Your task to perform on an android device: Open calendar and show me the second week of next month Image 0: 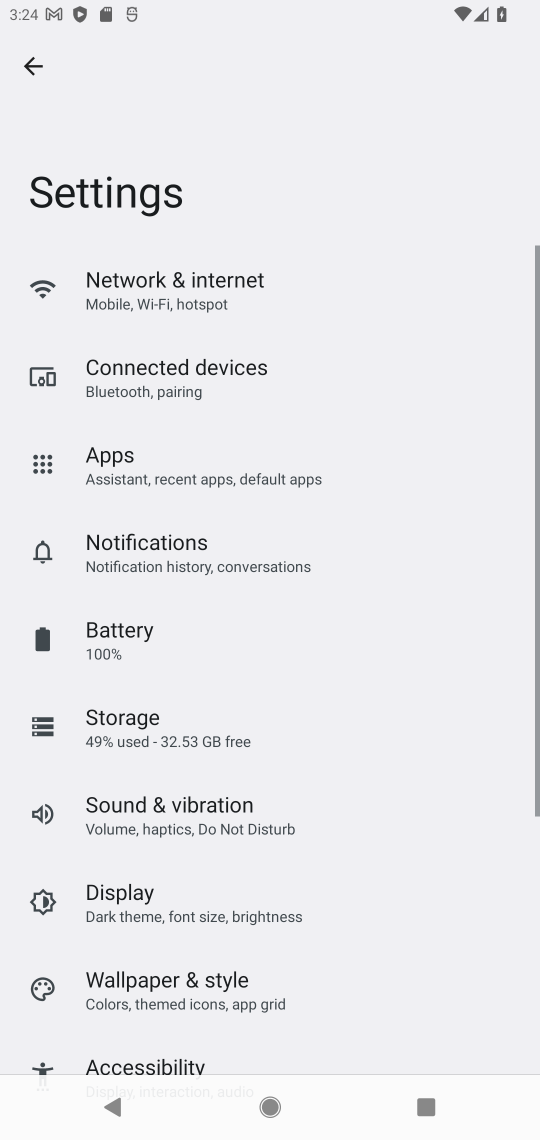
Step 0: press home button
Your task to perform on an android device: Open calendar and show me the second week of next month Image 1: 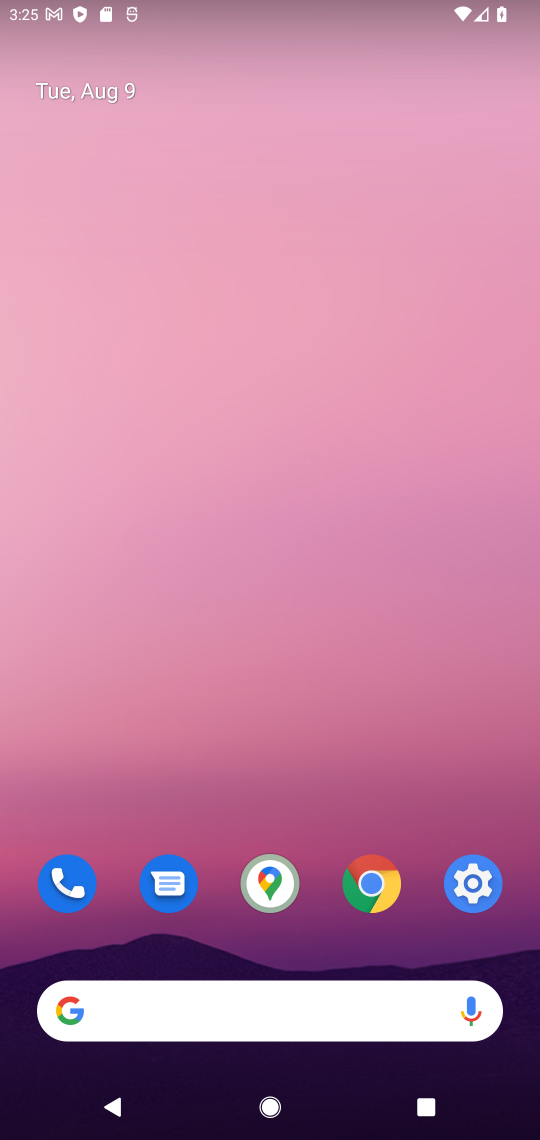
Step 1: drag from (367, 991) to (224, 264)
Your task to perform on an android device: Open calendar and show me the second week of next month Image 2: 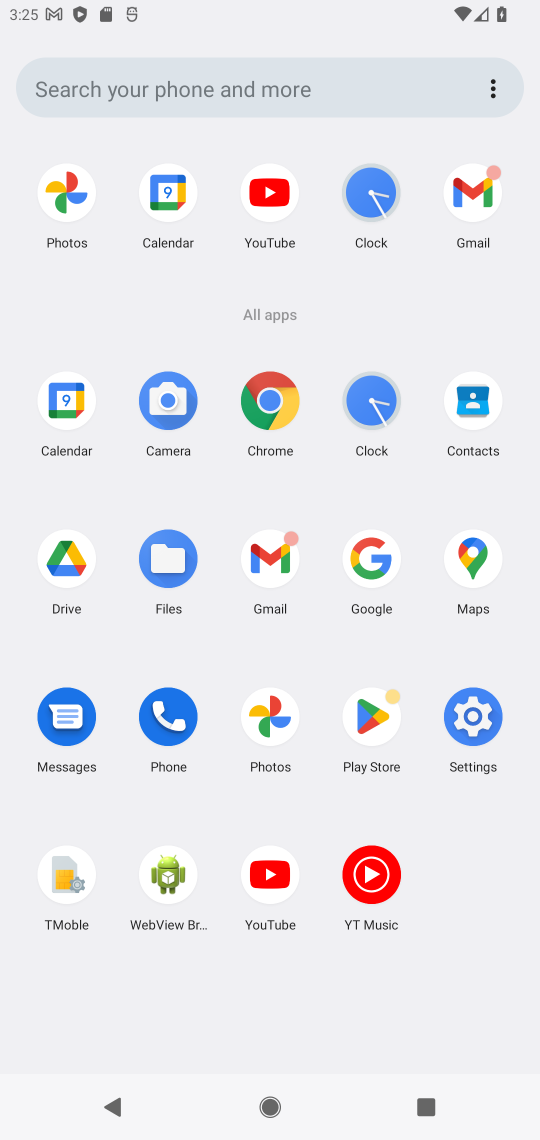
Step 2: click (73, 413)
Your task to perform on an android device: Open calendar and show me the second week of next month Image 3: 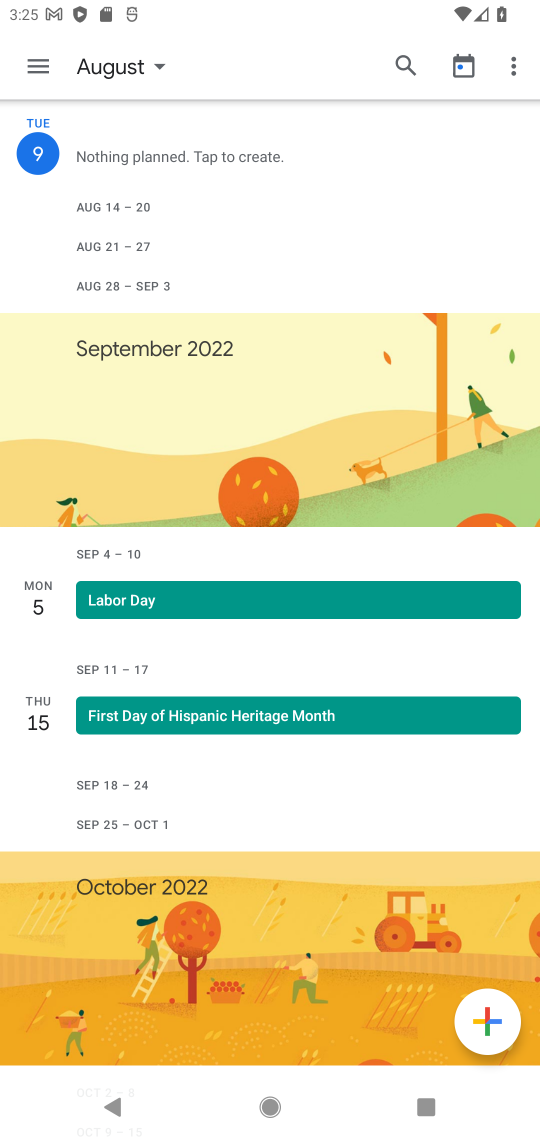
Step 3: click (44, 71)
Your task to perform on an android device: Open calendar and show me the second week of next month Image 4: 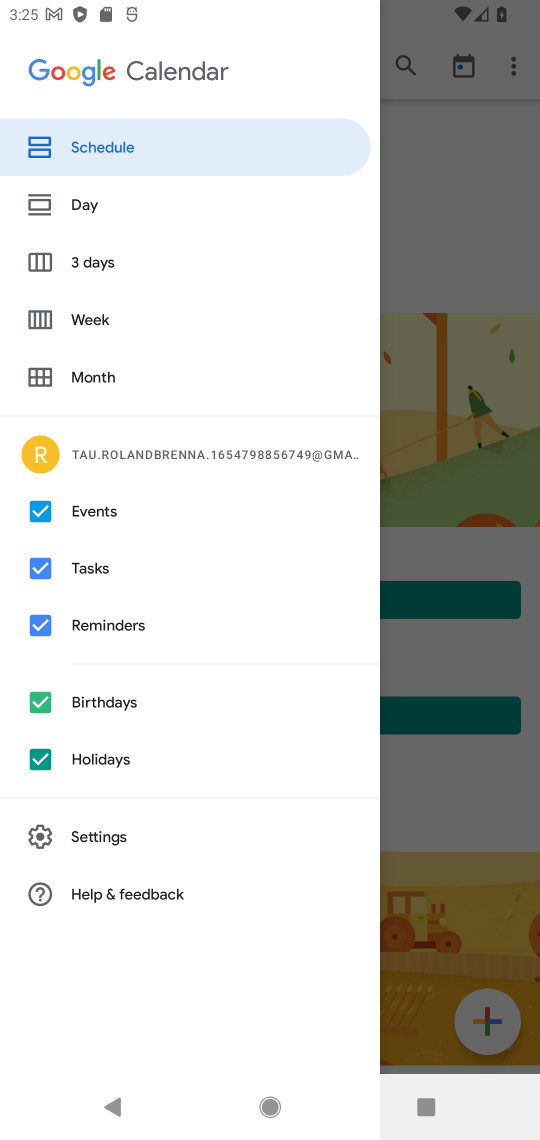
Step 4: click (92, 370)
Your task to perform on an android device: Open calendar and show me the second week of next month Image 5: 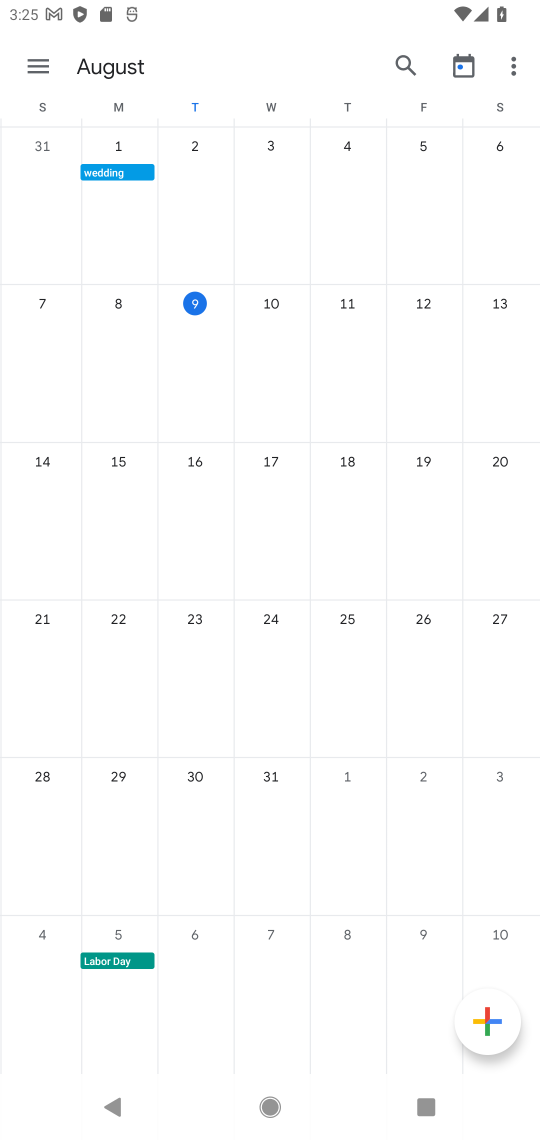
Step 5: click (181, 323)
Your task to perform on an android device: Open calendar and show me the second week of next month Image 6: 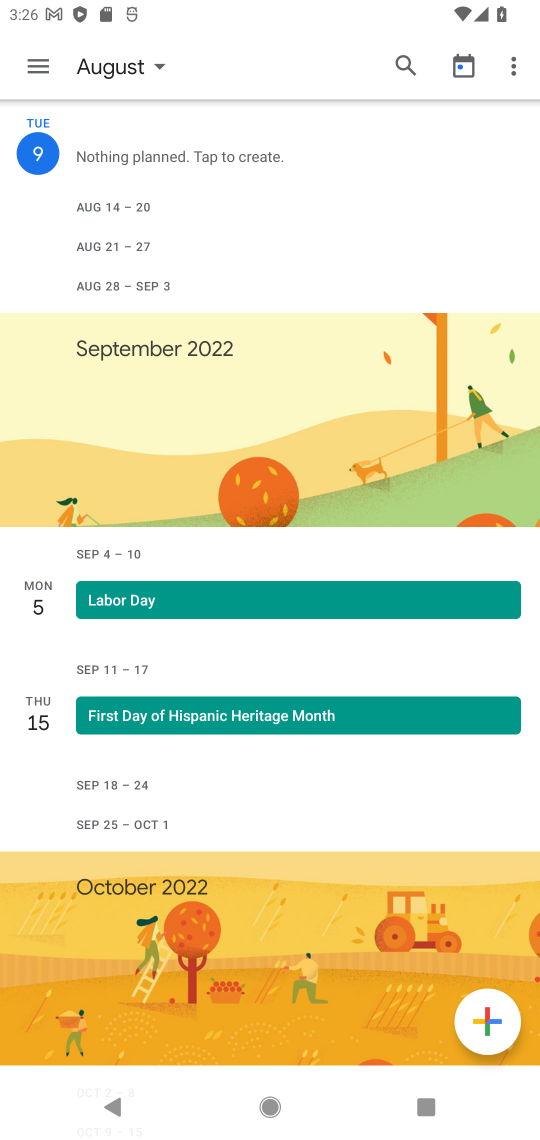
Step 6: task complete